Your task to perform on an android device: Open Google Chrome and open the bookmarks view Image 0: 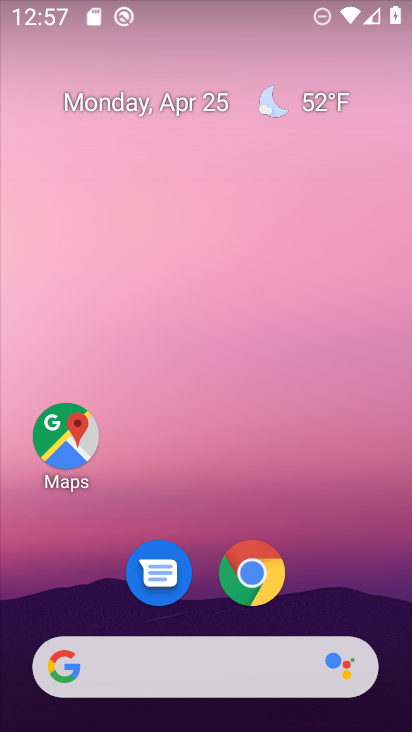
Step 0: click (251, 572)
Your task to perform on an android device: Open Google Chrome and open the bookmarks view Image 1: 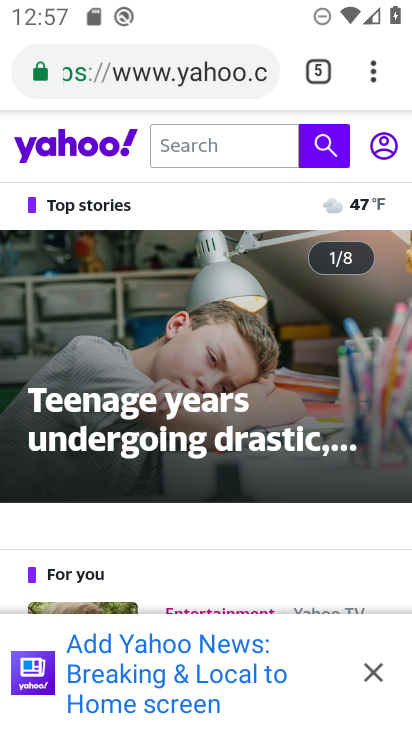
Step 1: task complete